Your task to perform on an android device: Open privacy settings Image 0: 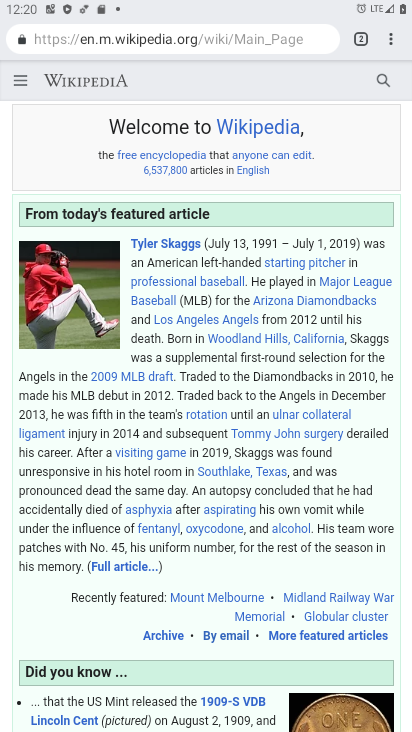
Step 0: press home button
Your task to perform on an android device: Open privacy settings Image 1: 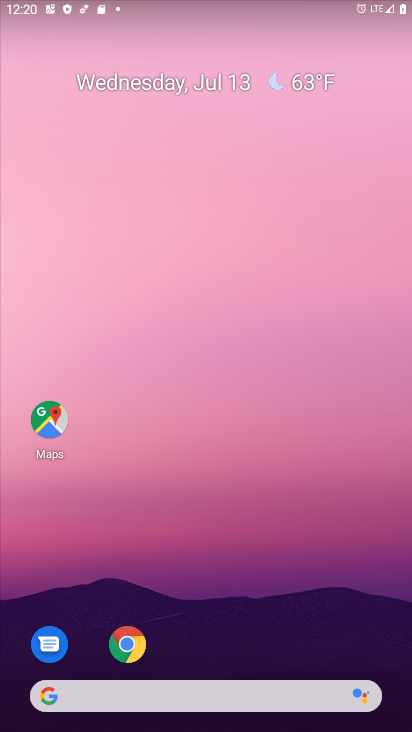
Step 1: click (129, 644)
Your task to perform on an android device: Open privacy settings Image 2: 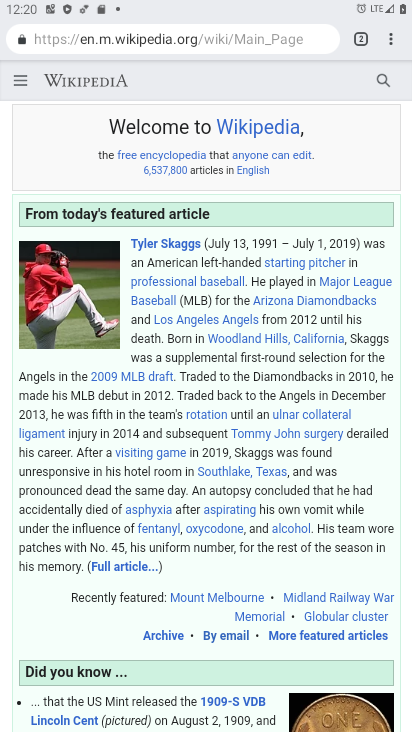
Step 2: click (394, 42)
Your task to perform on an android device: Open privacy settings Image 3: 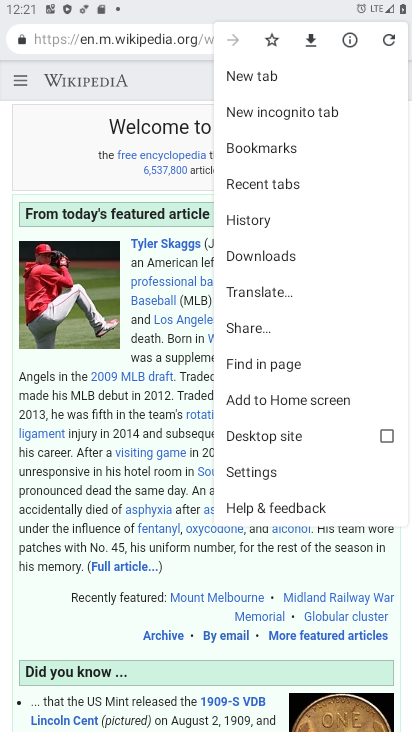
Step 3: click (267, 476)
Your task to perform on an android device: Open privacy settings Image 4: 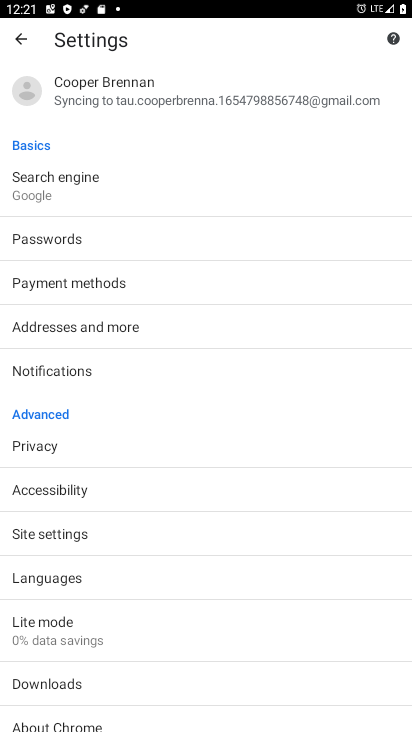
Step 4: click (51, 444)
Your task to perform on an android device: Open privacy settings Image 5: 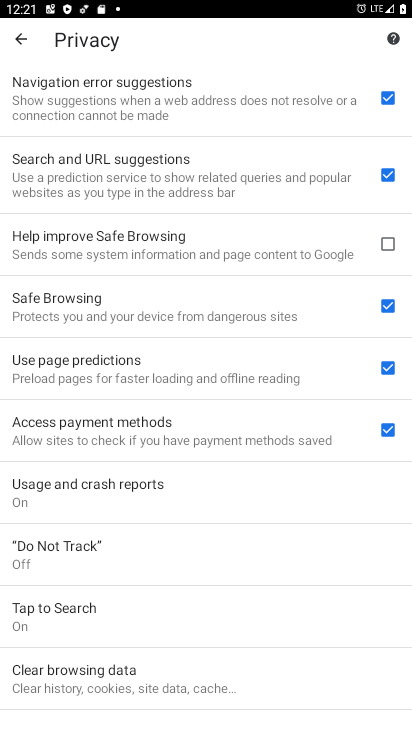
Step 5: task complete